Your task to perform on an android device: Do I have any events today? Image 0: 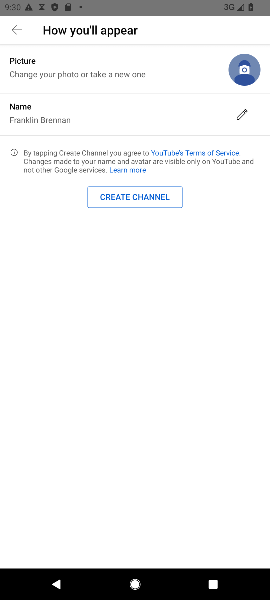
Step 0: press back button
Your task to perform on an android device: Do I have any events today? Image 1: 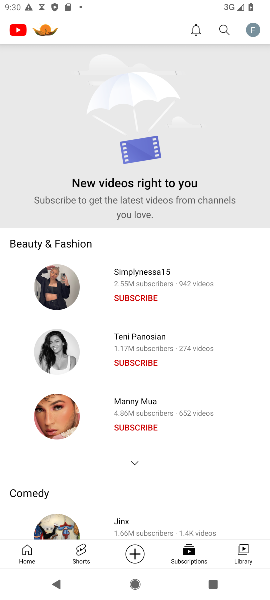
Step 1: press home button
Your task to perform on an android device: Do I have any events today? Image 2: 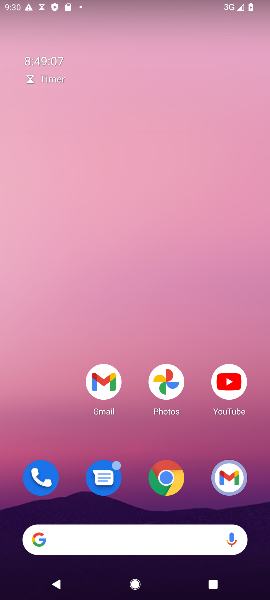
Step 2: drag from (194, 339) to (163, 18)
Your task to perform on an android device: Do I have any events today? Image 3: 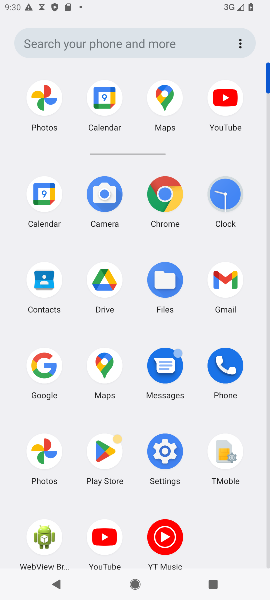
Step 3: click (107, 103)
Your task to perform on an android device: Do I have any events today? Image 4: 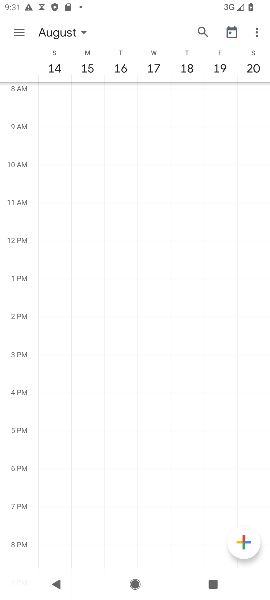
Step 4: click (20, 30)
Your task to perform on an android device: Do I have any events today? Image 5: 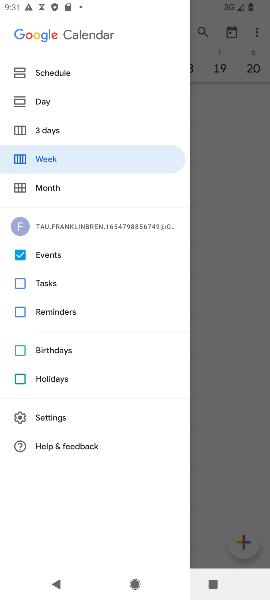
Step 5: click (39, 103)
Your task to perform on an android device: Do I have any events today? Image 6: 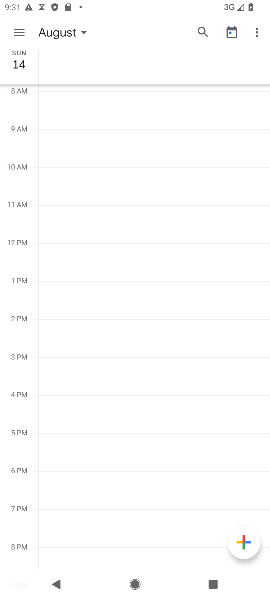
Step 6: click (61, 38)
Your task to perform on an android device: Do I have any events today? Image 7: 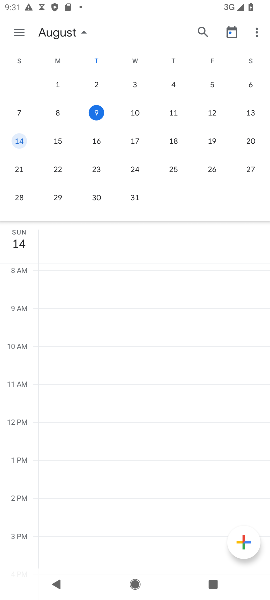
Step 7: click (92, 111)
Your task to perform on an android device: Do I have any events today? Image 8: 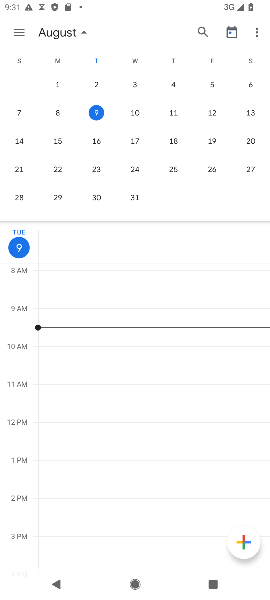
Step 8: task complete